Your task to perform on an android device: What's the weather today? Image 0: 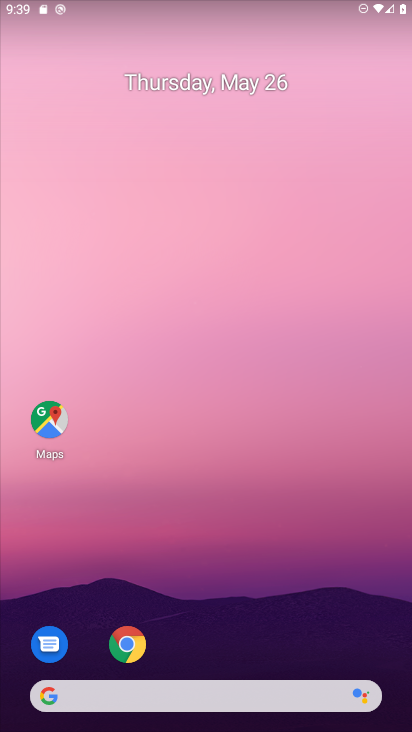
Step 0: drag from (9, 316) to (407, 195)
Your task to perform on an android device: What's the weather today? Image 1: 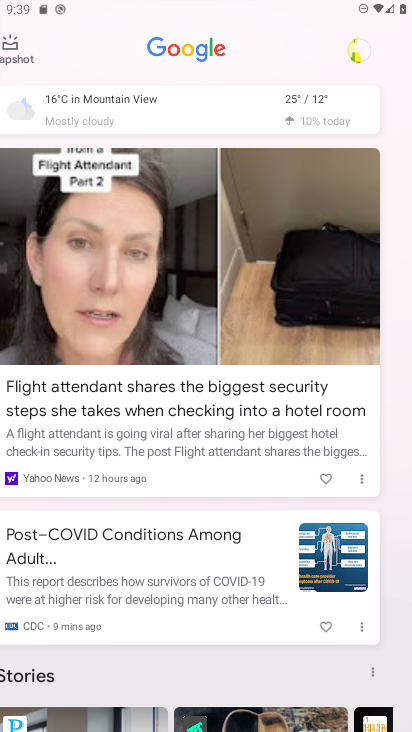
Step 1: drag from (264, 147) to (215, 667)
Your task to perform on an android device: What's the weather today? Image 2: 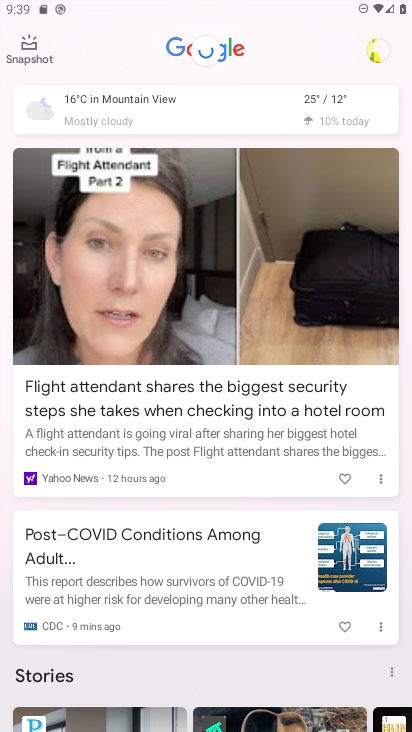
Step 2: click (287, 119)
Your task to perform on an android device: What's the weather today? Image 3: 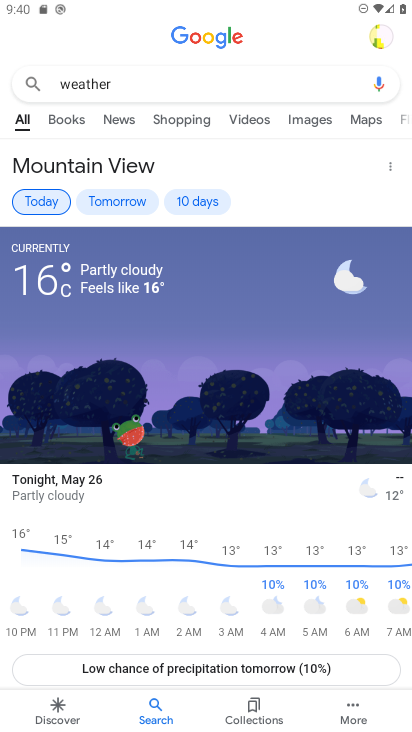
Step 3: click (49, 213)
Your task to perform on an android device: What's the weather today? Image 4: 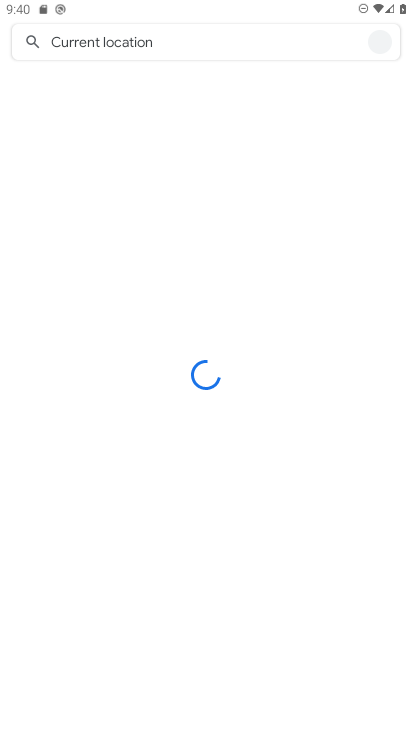
Step 4: click (144, 351)
Your task to perform on an android device: What's the weather today? Image 5: 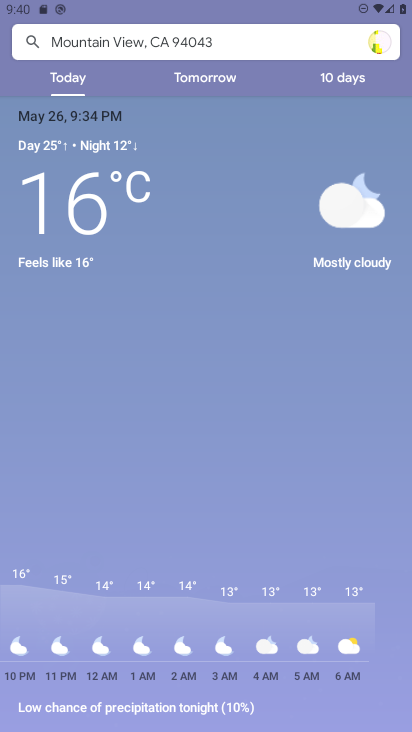
Step 5: task complete